Your task to perform on an android device: Set the phone to "Do not disturb". Image 0: 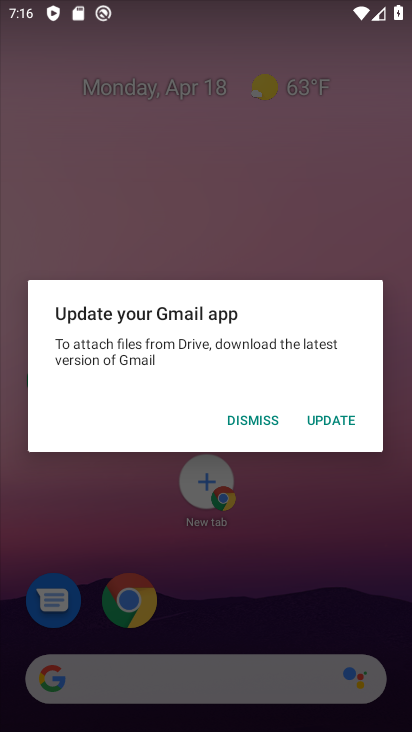
Step 0: press home button
Your task to perform on an android device: Set the phone to "Do not disturb". Image 1: 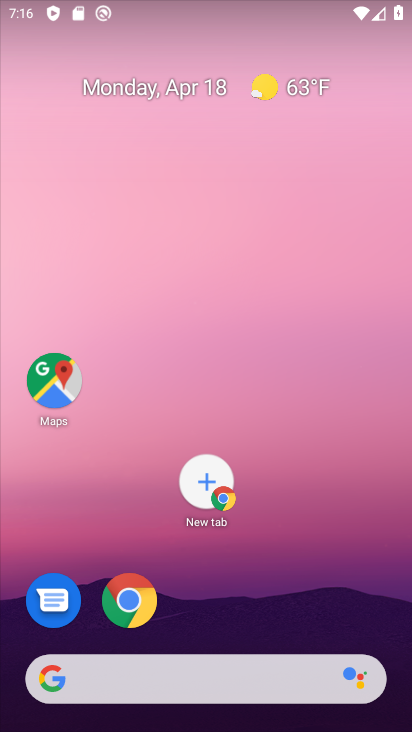
Step 1: drag from (309, 494) to (360, 39)
Your task to perform on an android device: Set the phone to "Do not disturb". Image 2: 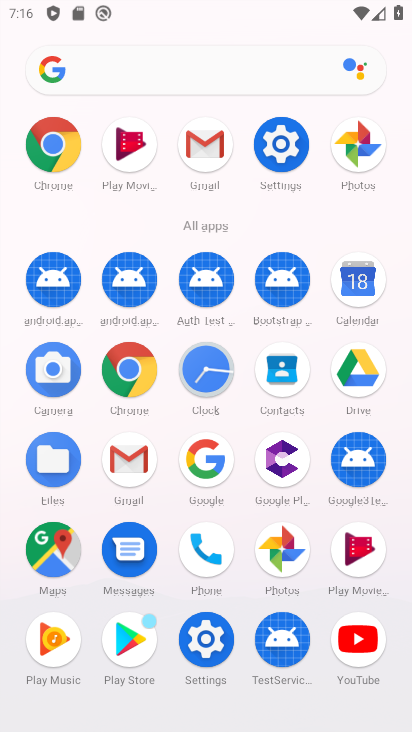
Step 2: click (282, 145)
Your task to perform on an android device: Set the phone to "Do not disturb". Image 3: 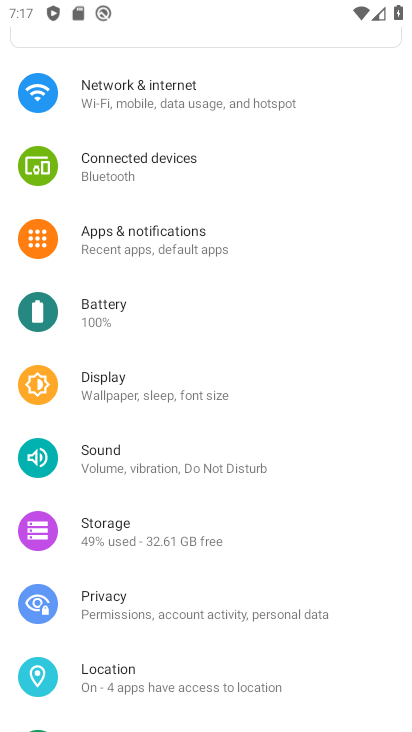
Step 3: click (85, 457)
Your task to perform on an android device: Set the phone to "Do not disturb". Image 4: 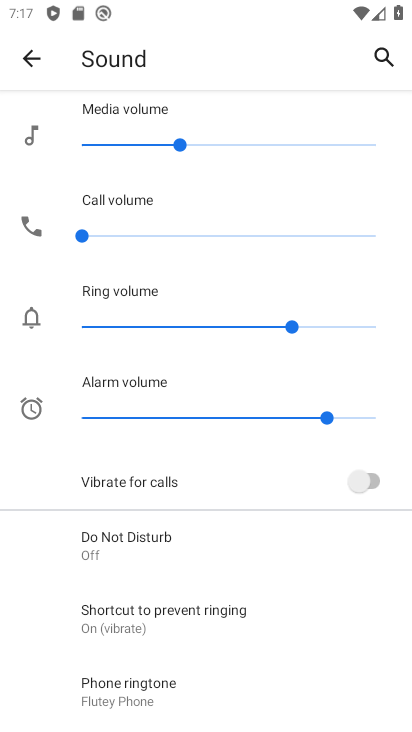
Step 4: click (118, 540)
Your task to perform on an android device: Set the phone to "Do not disturb". Image 5: 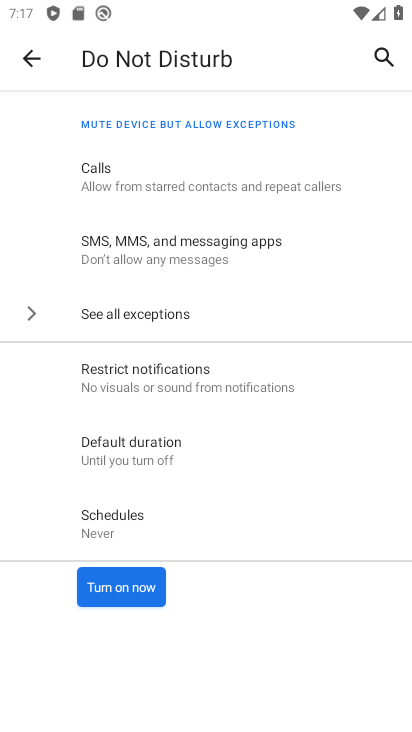
Step 5: click (126, 592)
Your task to perform on an android device: Set the phone to "Do not disturb". Image 6: 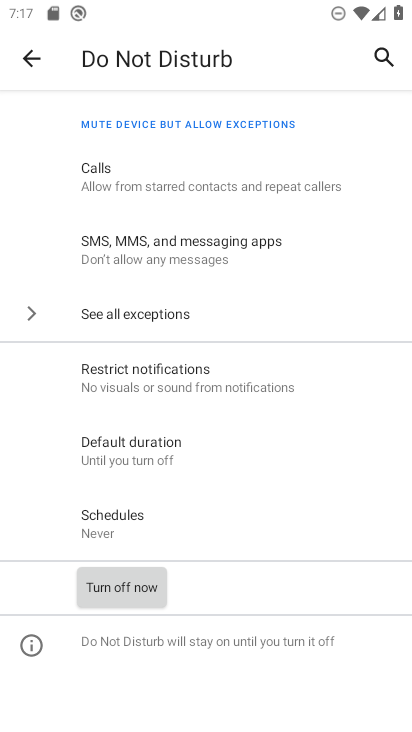
Step 6: task complete